Your task to perform on an android device: What's the weather like in Seoul? Image 0: 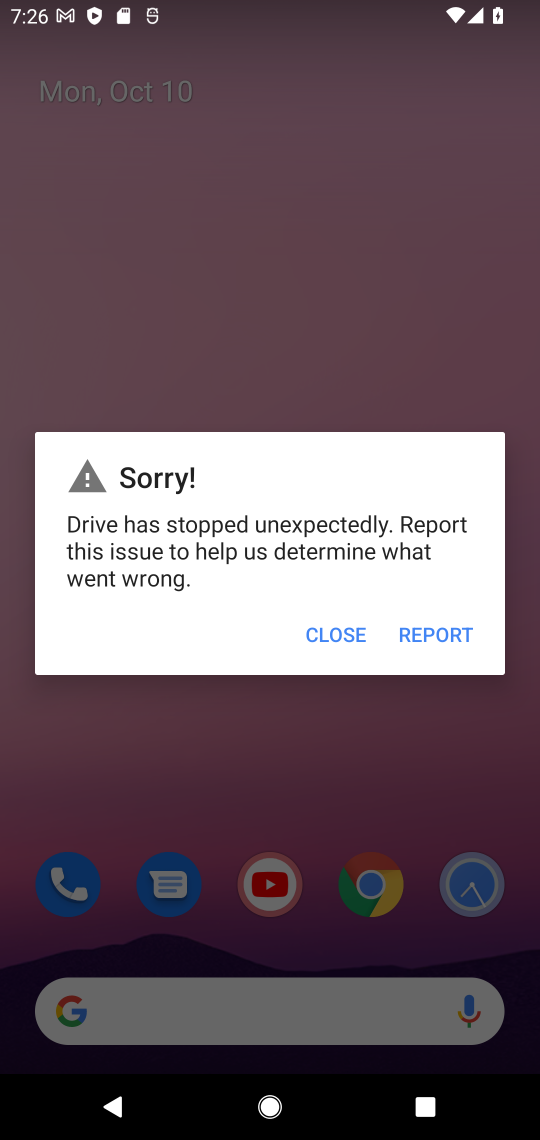
Step 0: press home button
Your task to perform on an android device: What's the weather like in Seoul? Image 1: 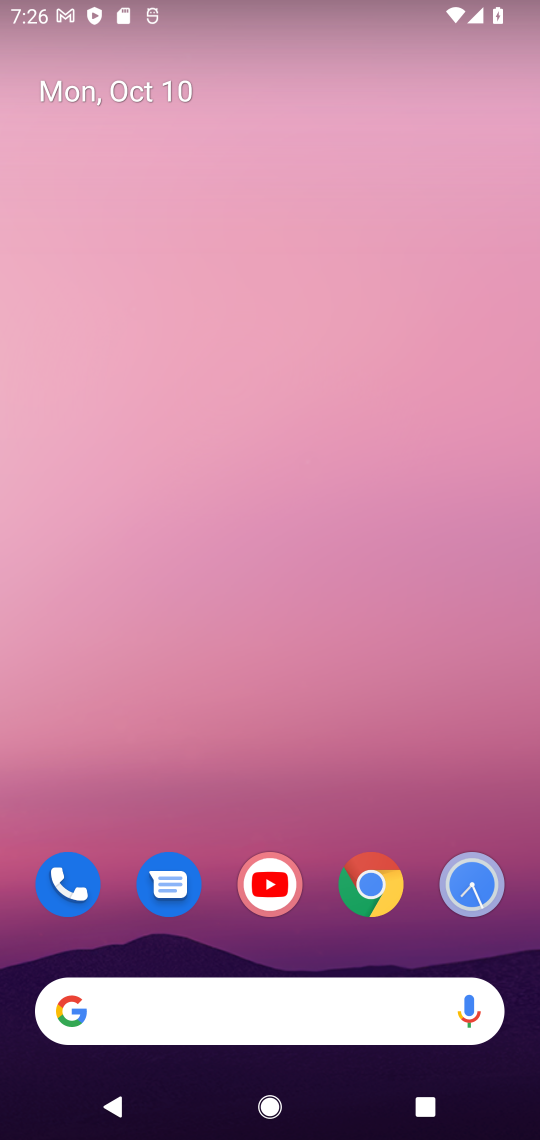
Step 1: click (367, 883)
Your task to perform on an android device: What's the weather like in Seoul? Image 2: 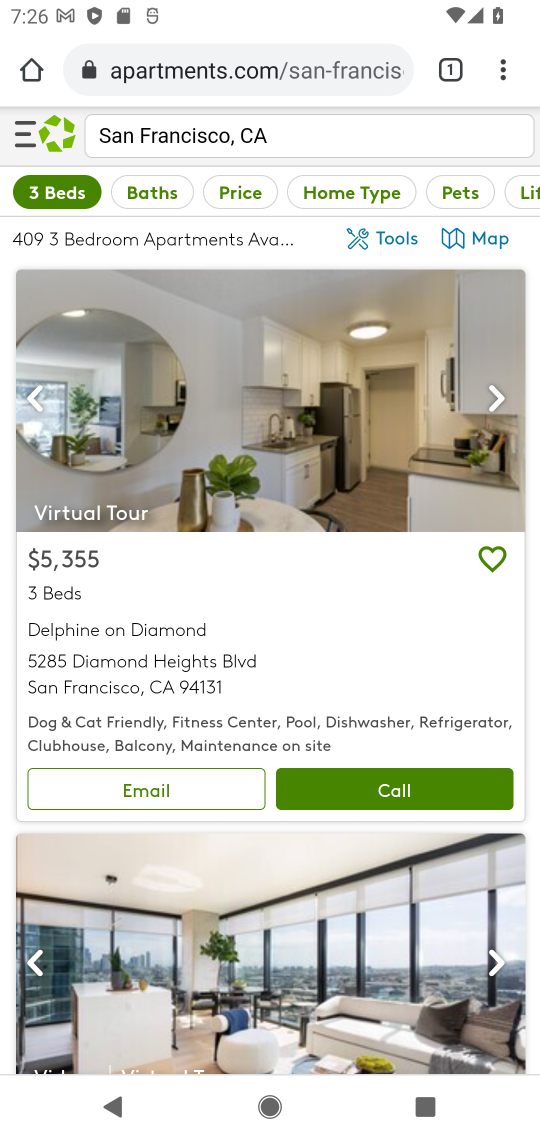
Step 2: click (198, 81)
Your task to perform on an android device: What's the weather like in Seoul? Image 3: 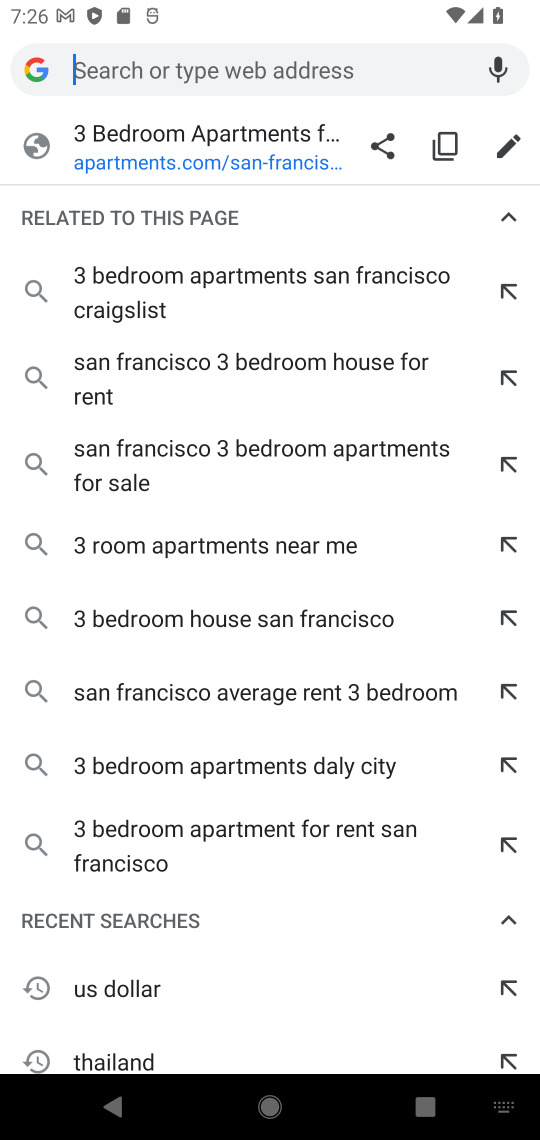
Step 3: type "weather in seoul"
Your task to perform on an android device: What's the weather like in Seoul? Image 4: 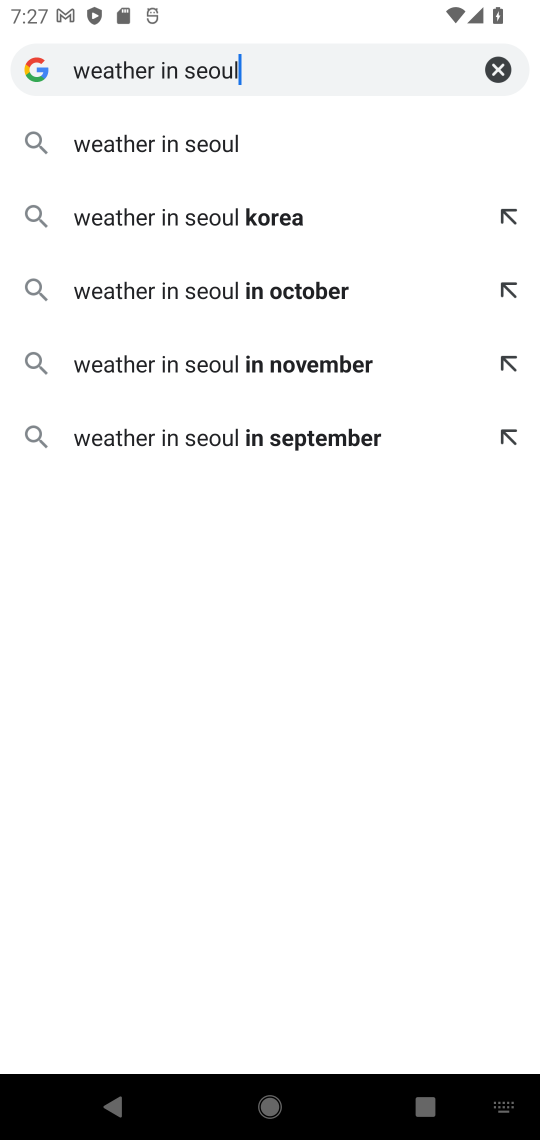
Step 4: click (287, 153)
Your task to perform on an android device: What's the weather like in Seoul? Image 5: 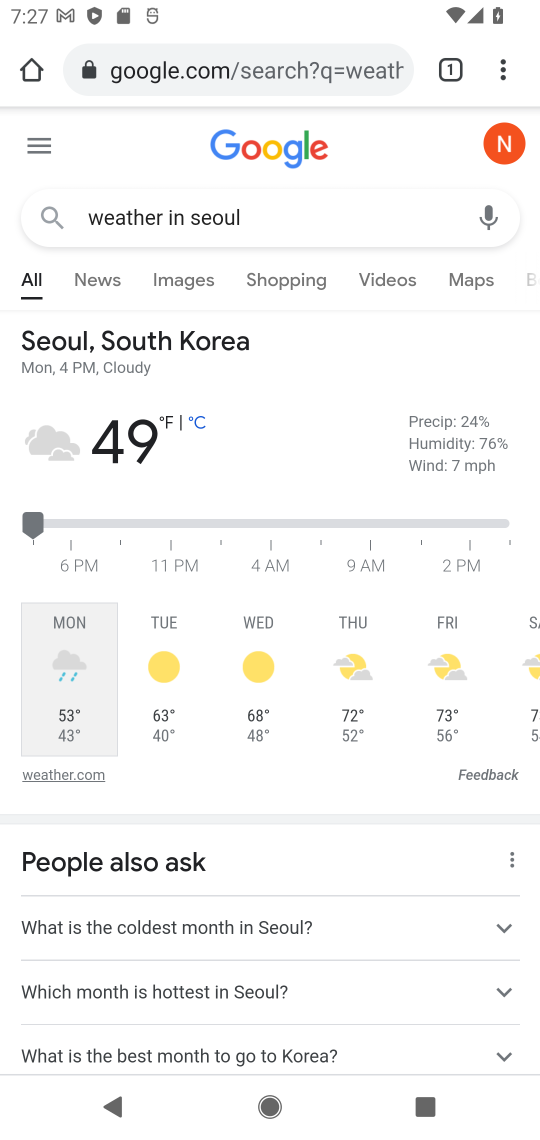
Step 5: task complete